Your task to perform on an android device: Go to Yahoo.com Image 0: 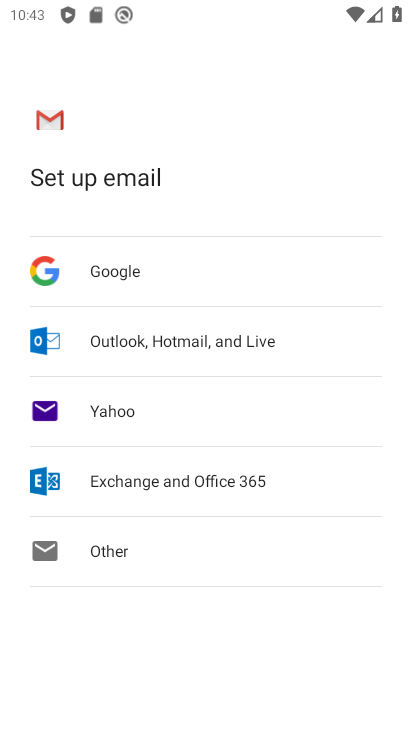
Step 0: press back button
Your task to perform on an android device: Go to Yahoo.com Image 1: 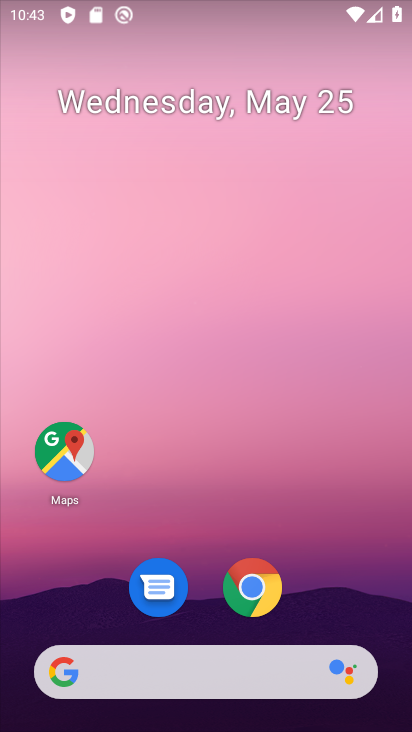
Step 1: drag from (331, 548) to (238, 0)
Your task to perform on an android device: Go to Yahoo.com Image 2: 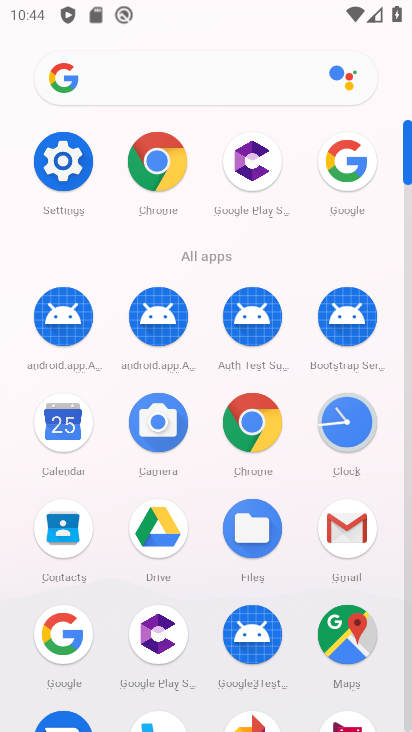
Step 2: click (159, 157)
Your task to perform on an android device: Go to Yahoo.com Image 3: 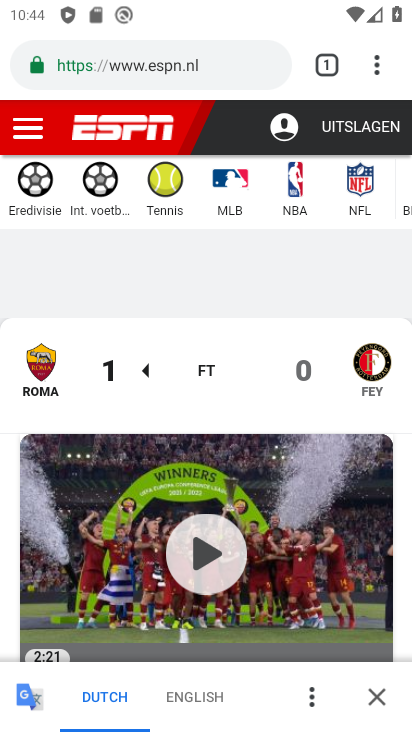
Step 3: click (194, 59)
Your task to perform on an android device: Go to Yahoo.com Image 4: 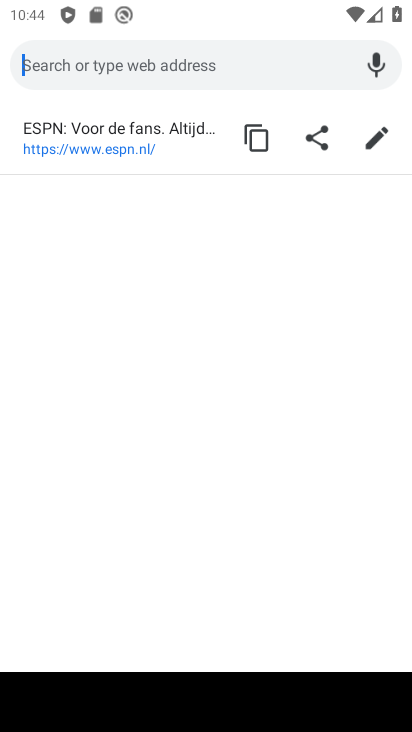
Step 4: type "Yahoo.com"
Your task to perform on an android device: Go to Yahoo.com Image 5: 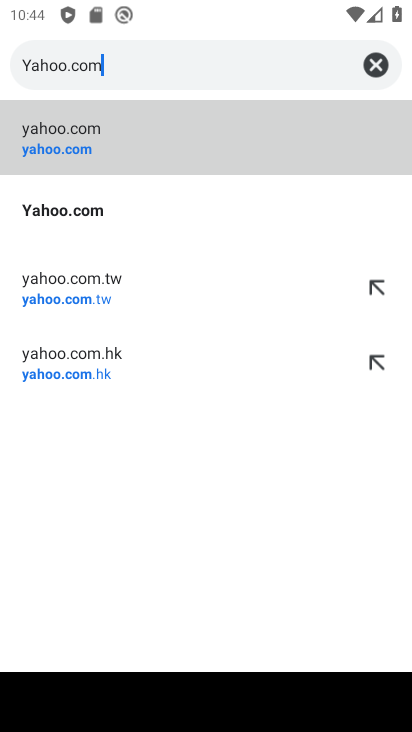
Step 5: click (151, 137)
Your task to perform on an android device: Go to Yahoo.com Image 6: 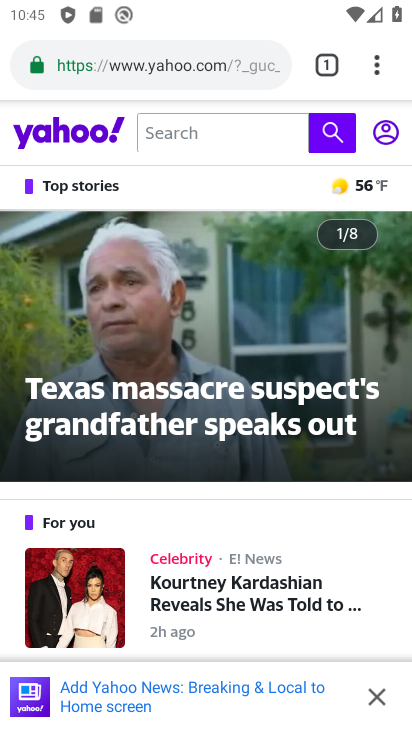
Step 6: task complete